Your task to perform on an android device: Open Amazon Image 0: 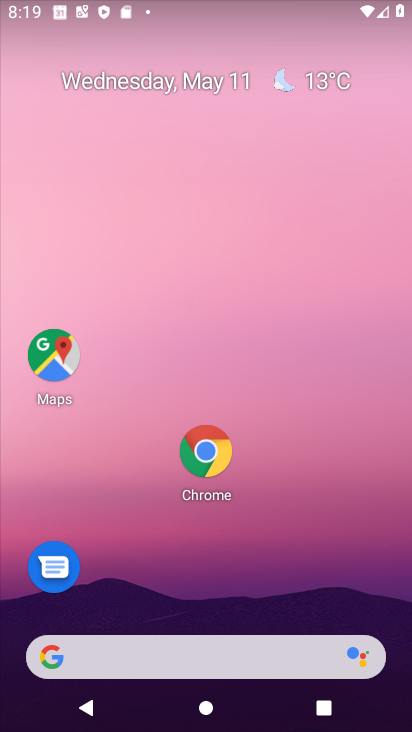
Step 0: press home button
Your task to perform on an android device: Open Amazon Image 1: 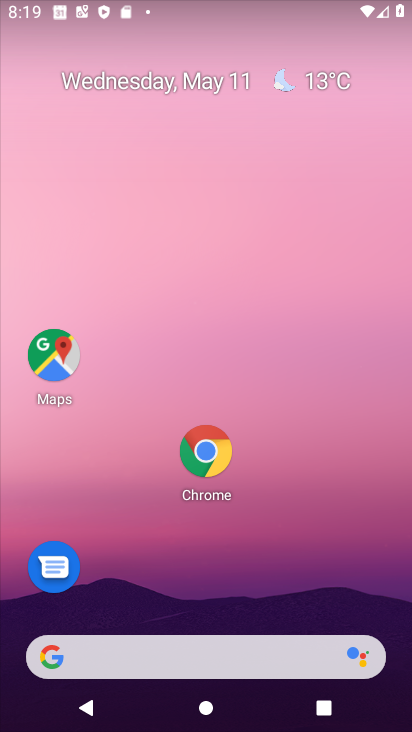
Step 1: click (202, 464)
Your task to perform on an android device: Open Amazon Image 2: 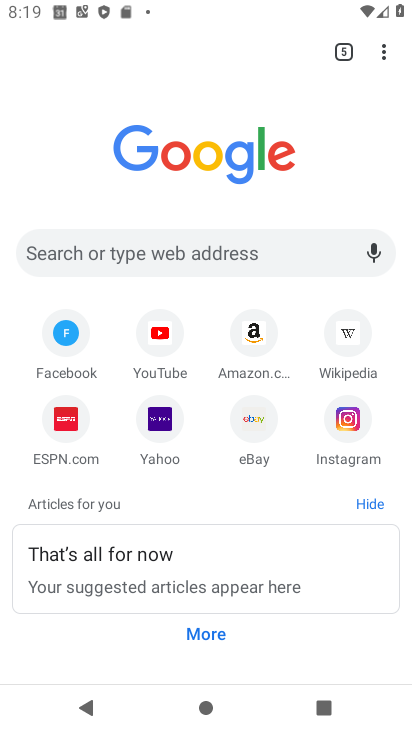
Step 2: click (261, 337)
Your task to perform on an android device: Open Amazon Image 3: 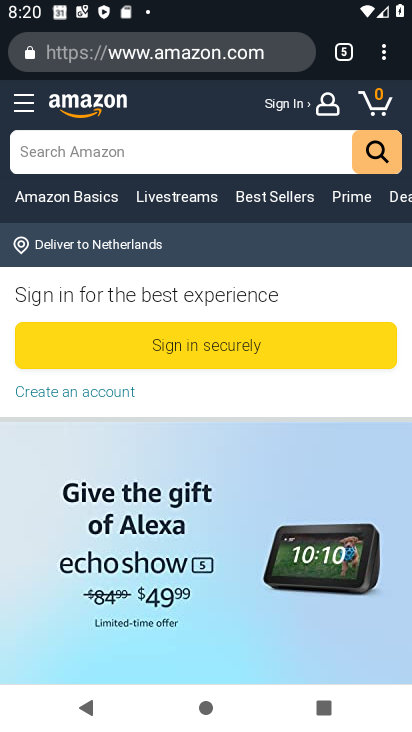
Step 3: task complete